Your task to perform on an android device: move a message to another label in the gmail app Image 0: 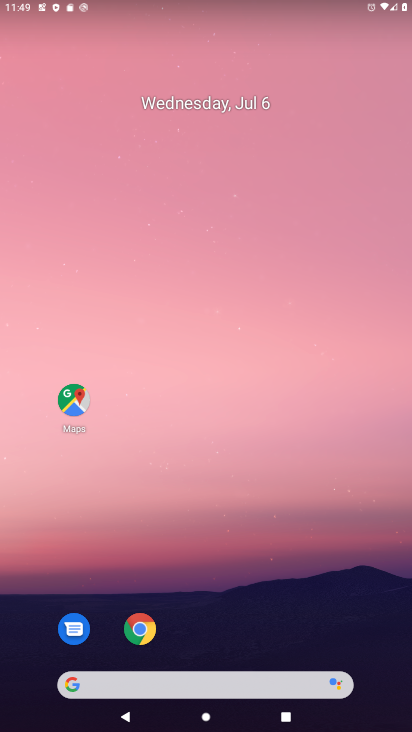
Step 0: drag from (240, 622) to (238, 60)
Your task to perform on an android device: move a message to another label in the gmail app Image 1: 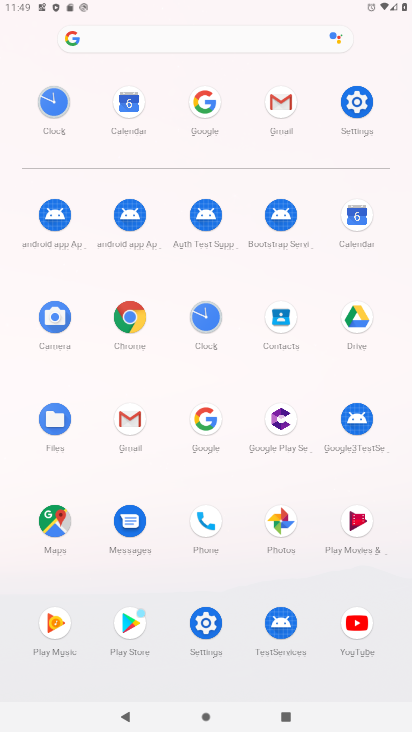
Step 1: click (276, 117)
Your task to perform on an android device: move a message to another label in the gmail app Image 2: 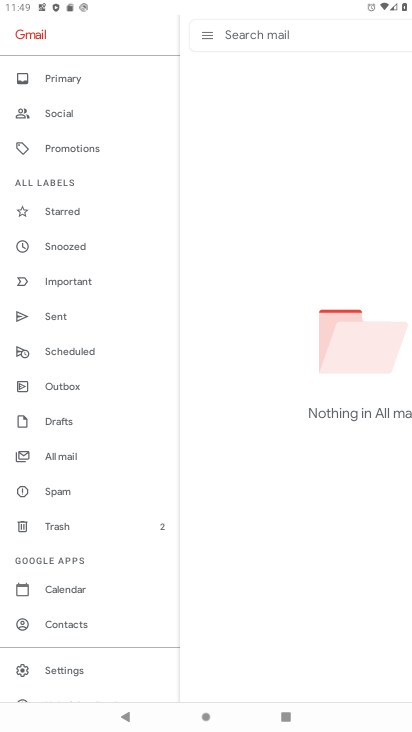
Step 2: click (77, 455)
Your task to perform on an android device: move a message to another label in the gmail app Image 3: 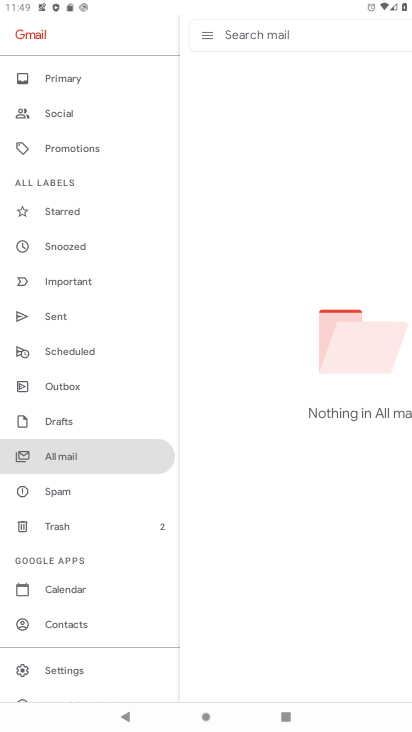
Step 3: task complete